Your task to perform on an android device: What's the weather like in Sydney? Image 0: 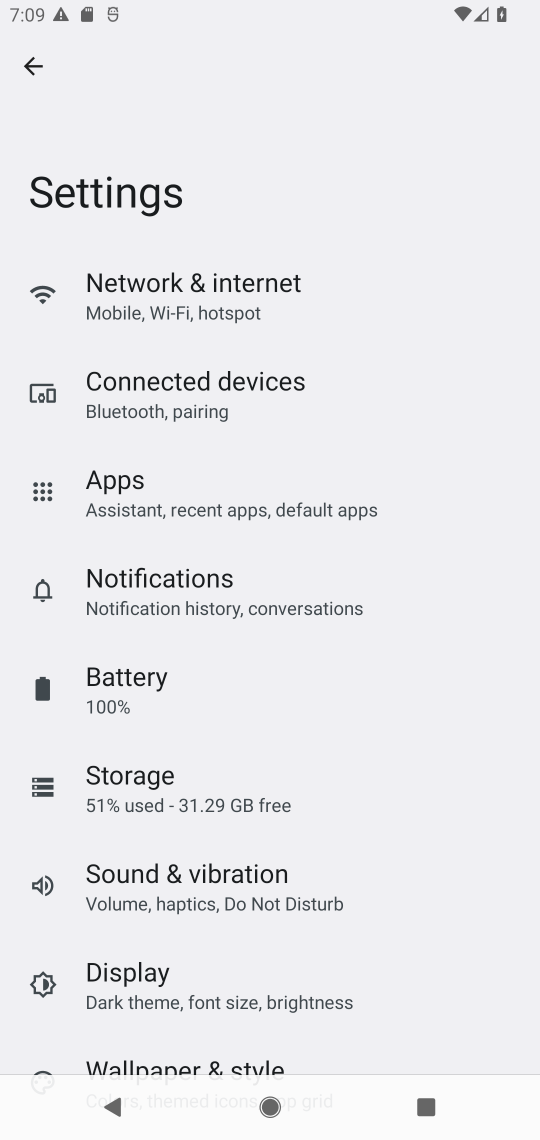
Step 0: press home button
Your task to perform on an android device: What's the weather like in Sydney? Image 1: 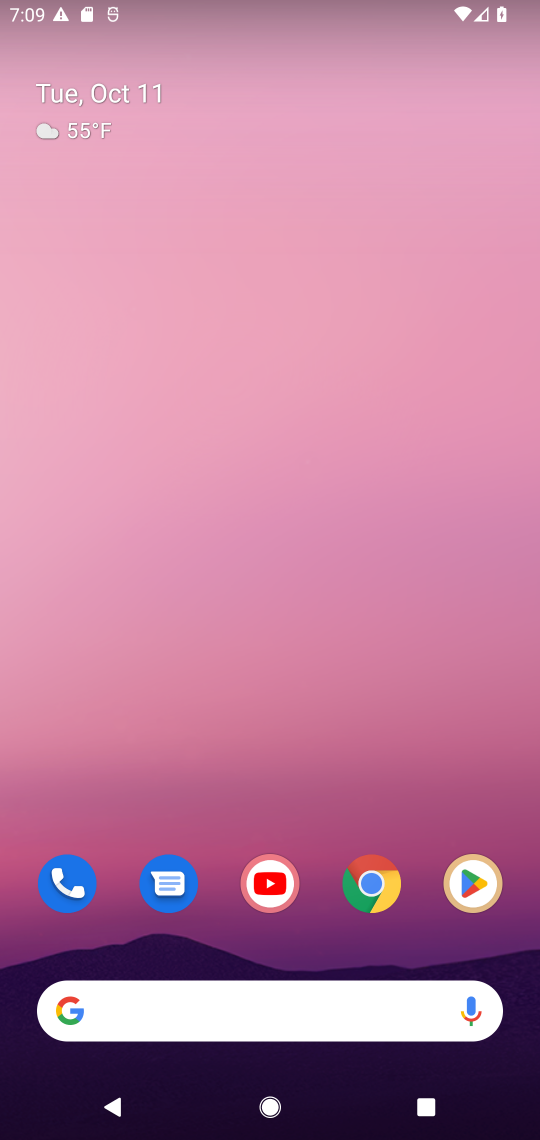
Step 1: drag from (273, 314) to (255, 54)
Your task to perform on an android device: What's the weather like in Sydney? Image 2: 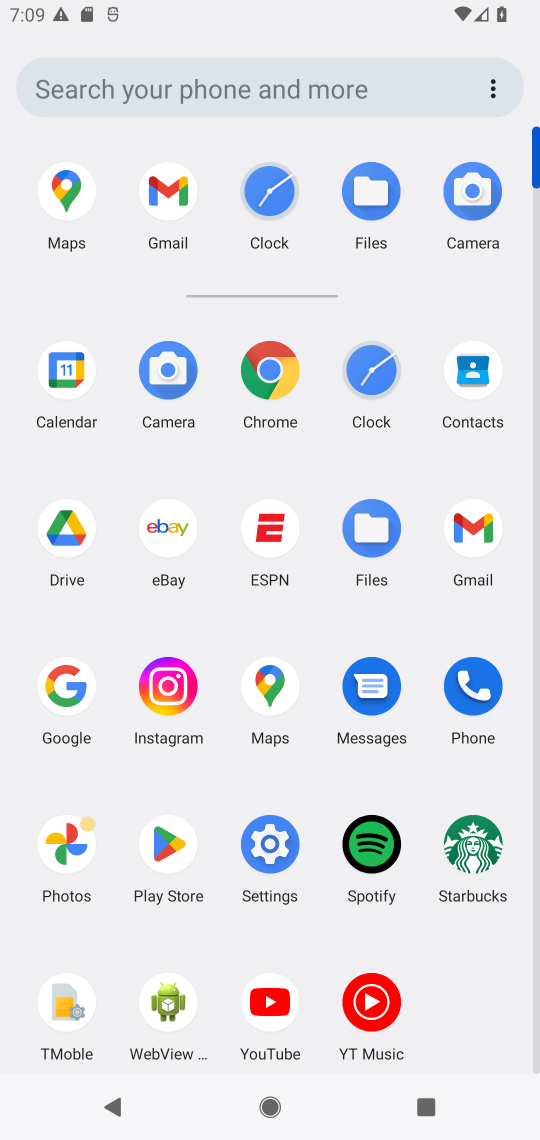
Step 2: click (253, 368)
Your task to perform on an android device: What's the weather like in Sydney? Image 3: 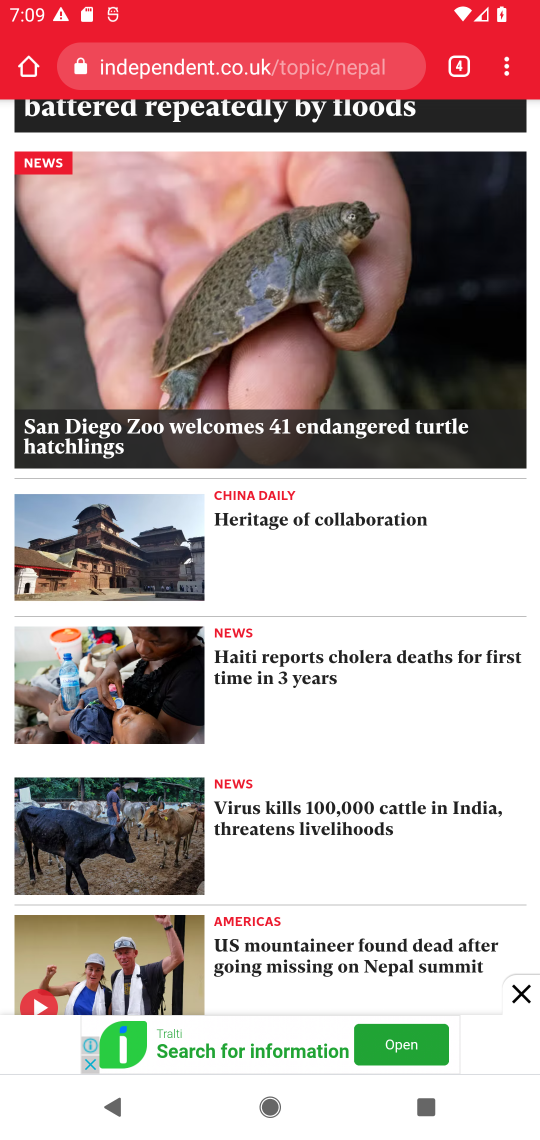
Step 3: click (306, 60)
Your task to perform on an android device: What's the weather like in Sydney? Image 4: 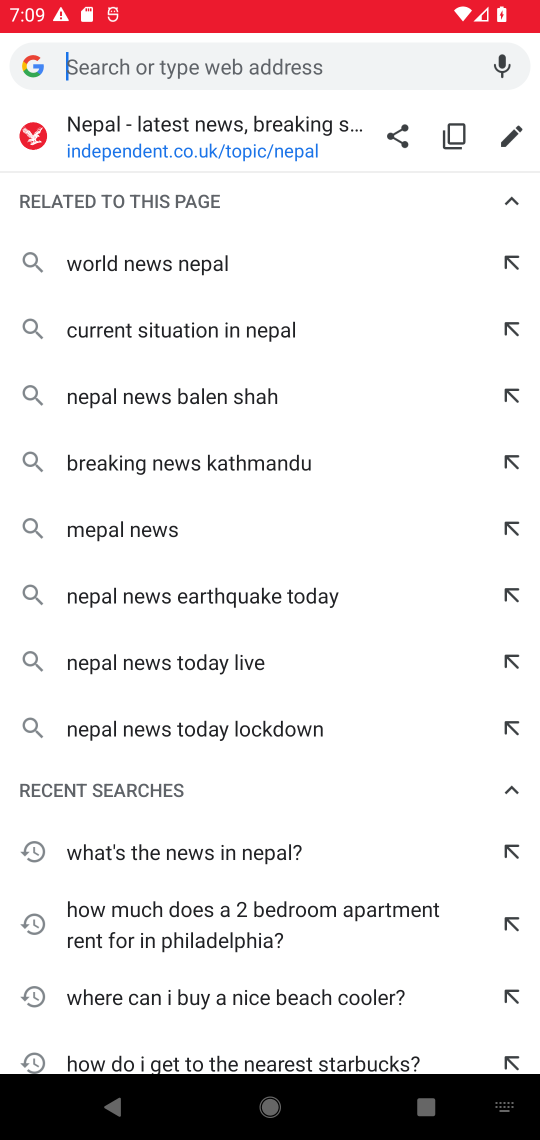
Step 4: type "What's the weather like in Sydney?"
Your task to perform on an android device: What's the weather like in Sydney? Image 5: 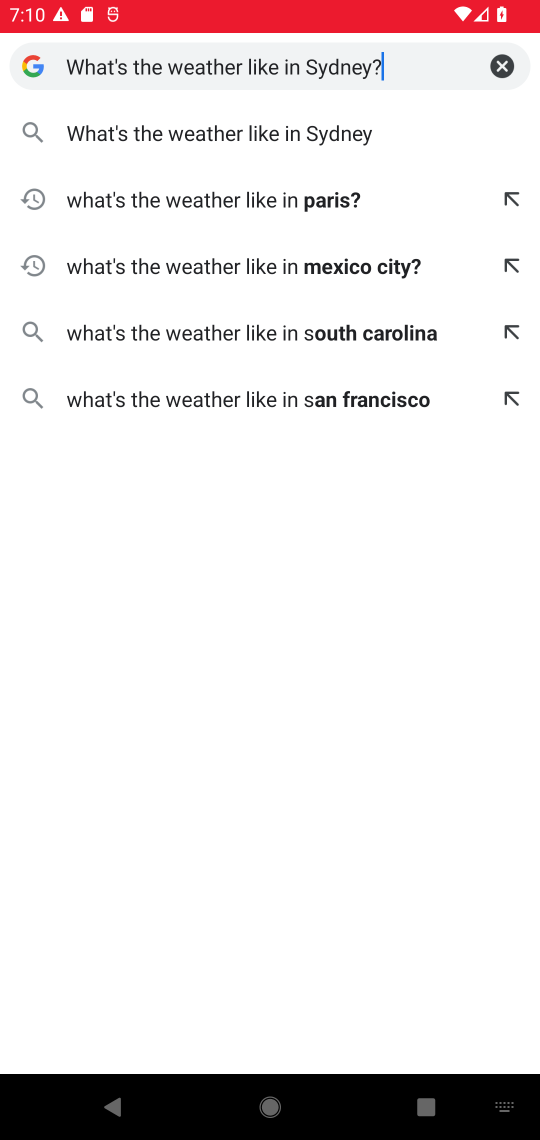
Step 5: press enter
Your task to perform on an android device: What's the weather like in Sydney? Image 6: 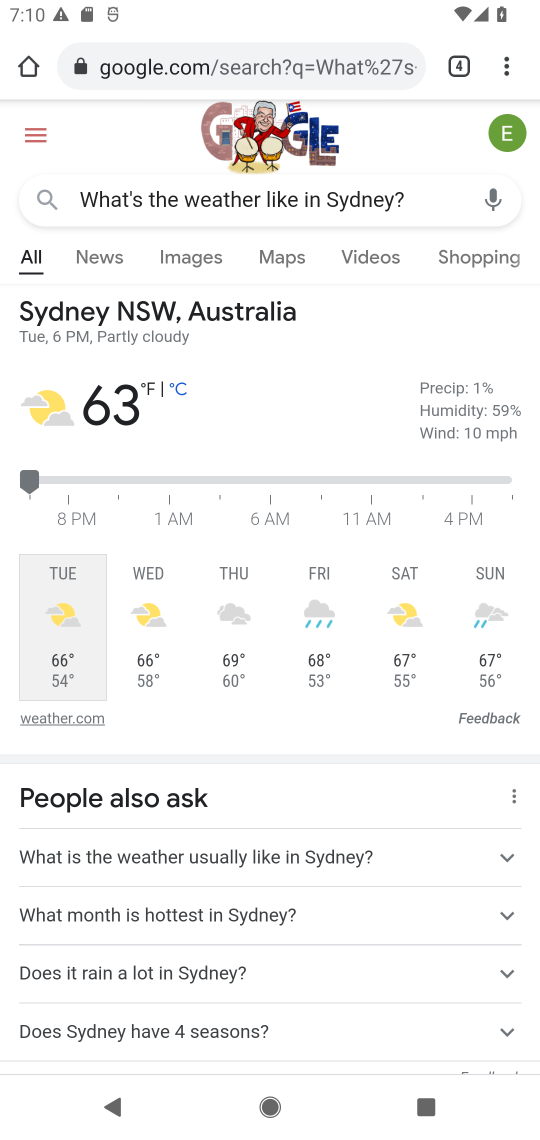
Step 6: task complete